Your task to perform on an android device: Open Android settings Image 0: 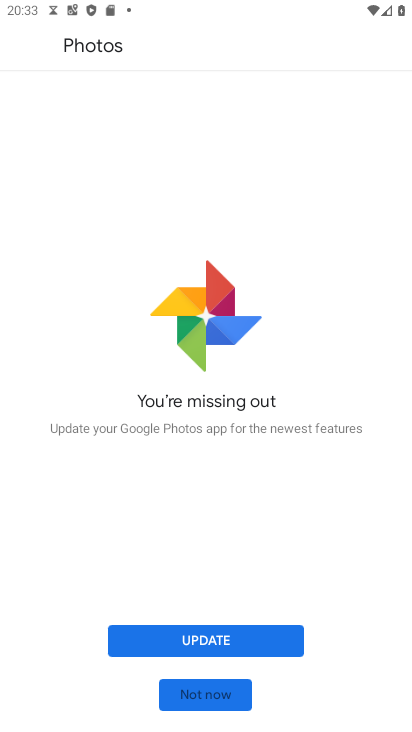
Step 0: press home button
Your task to perform on an android device: Open Android settings Image 1: 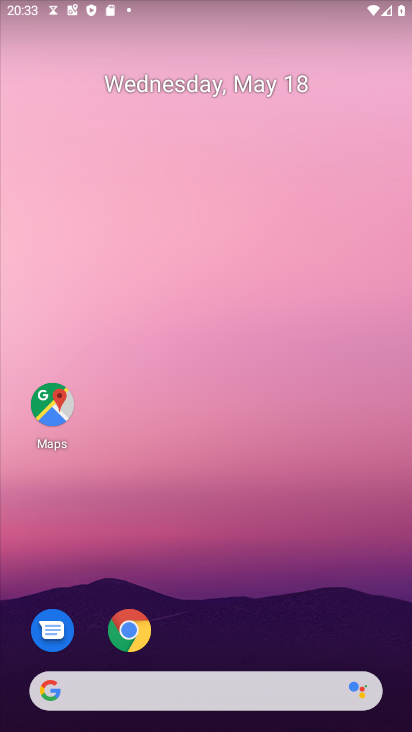
Step 1: drag from (163, 600) to (310, 92)
Your task to perform on an android device: Open Android settings Image 2: 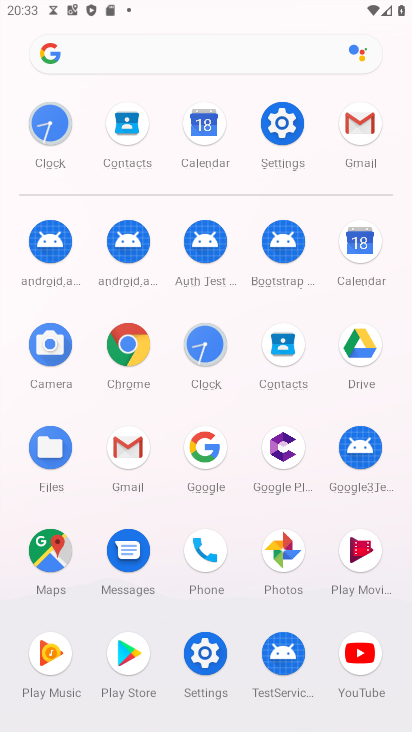
Step 2: click (282, 131)
Your task to perform on an android device: Open Android settings Image 3: 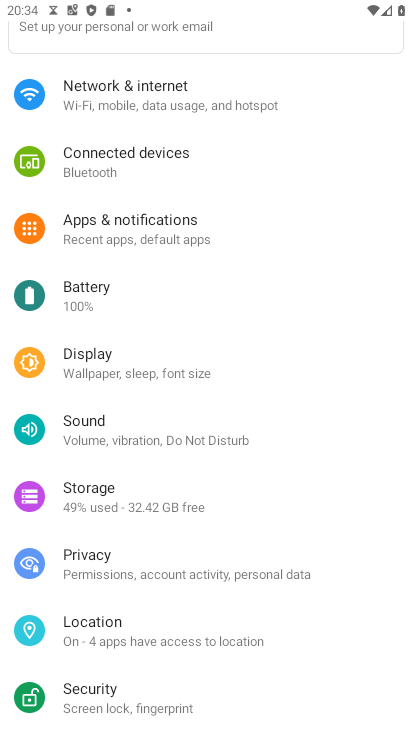
Step 3: task complete